Your task to perform on an android device: toggle notifications settings in the gmail app Image 0: 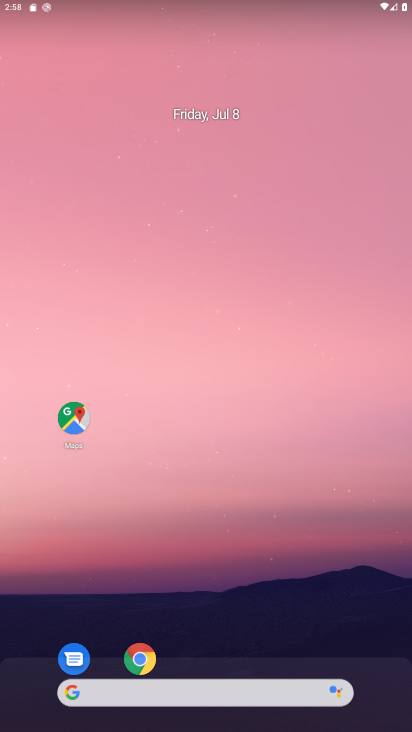
Step 0: drag from (249, 627) to (226, 172)
Your task to perform on an android device: toggle notifications settings in the gmail app Image 1: 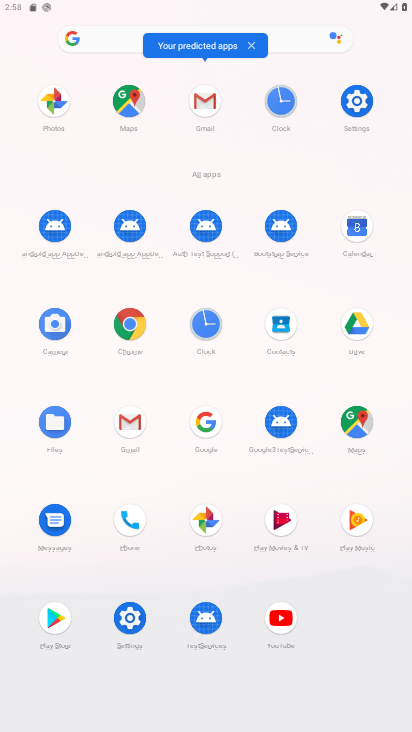
Step 1: click (207, 97)
Your task to perform on an android device: toggle notifications settings in the gmail app Image 2: 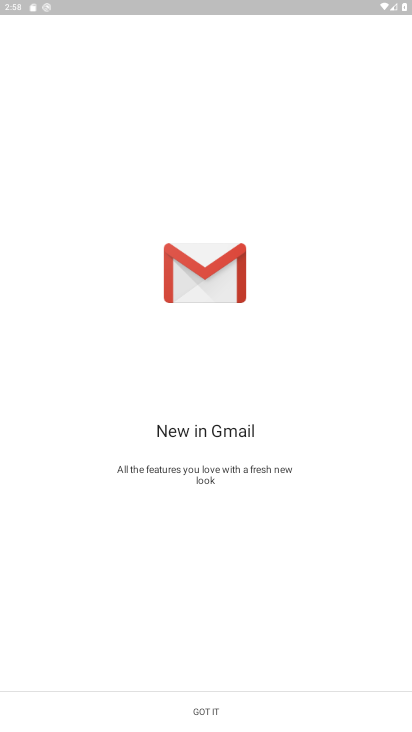
Step 2: click (200, 720)
Your task to perform on an android device: toggle notifications settings in the gmail app Image 3: 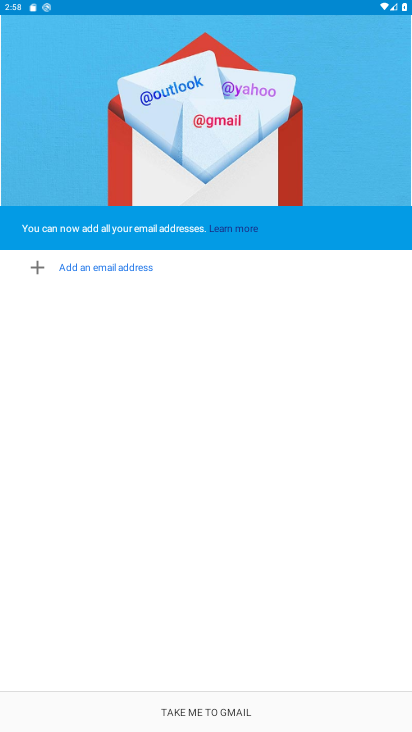
Step 3: click (203, 714)
Your task to perform on an android device: toggle notifications settings in the gmail app Image 4: 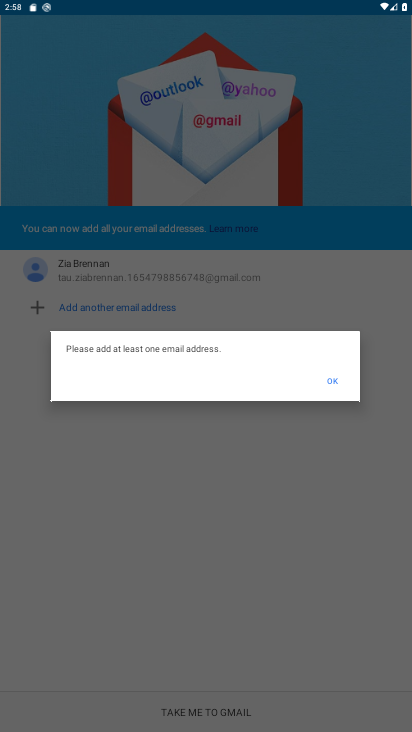
Step 4: task complete